Your task to perform on an android device: change the clock display to digital Image 0: 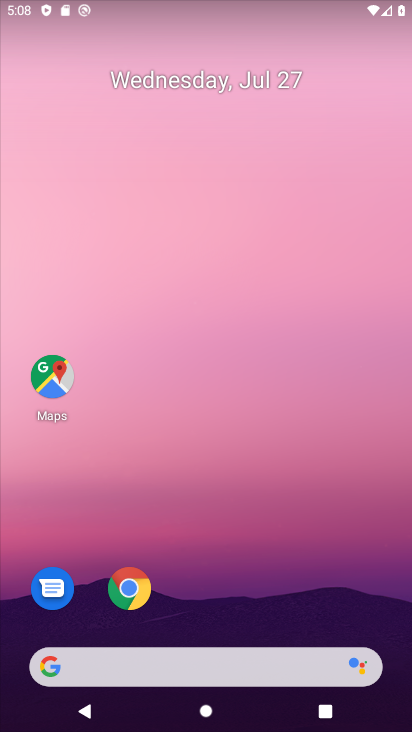
Step 0: drag from (267, 642) to (323, 3)
Your task to perform on an android device: change the clock display to digital Image 1: 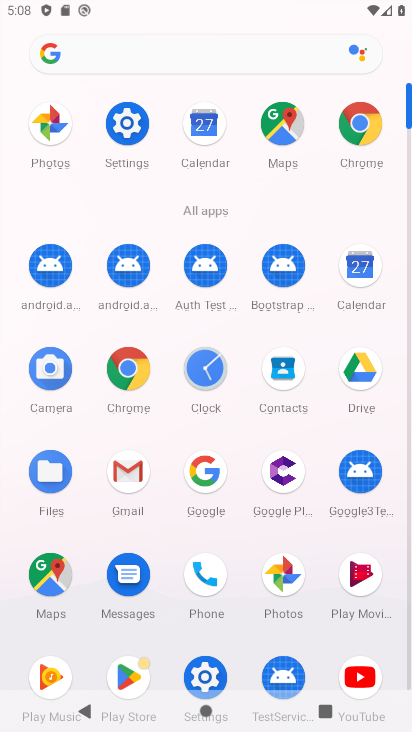
Step 1: click (207, 373)
Your task to perform on an android device: change the clock display to digital Image 2: 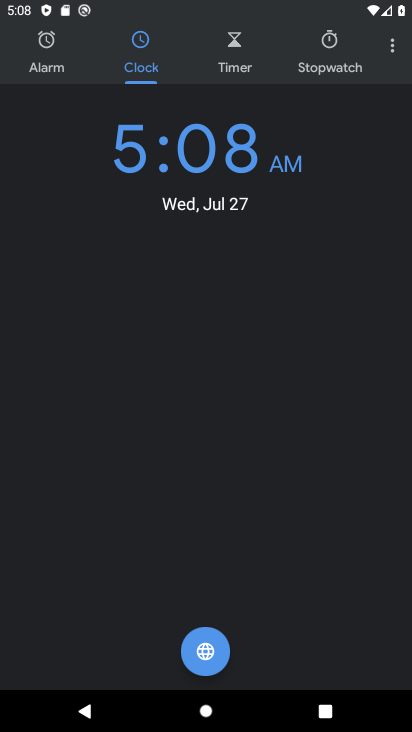
Step 2: click (395, 41)
Your task to perform on an android device: change the clock display to digital Image 3: 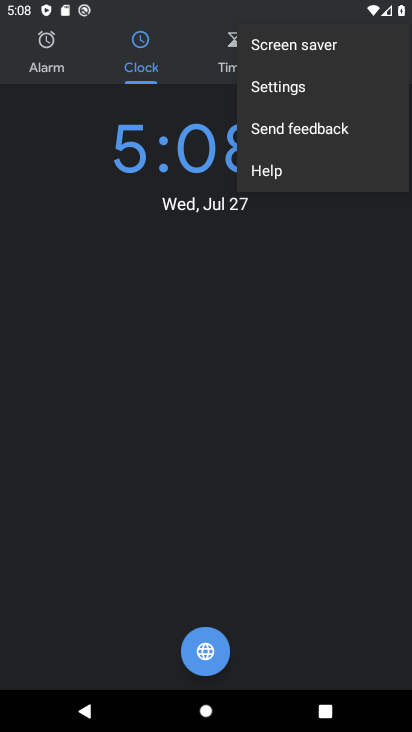
Step 3: click (314, 94)
Your task to perform on an android device: change the clock display to digital Image 4: 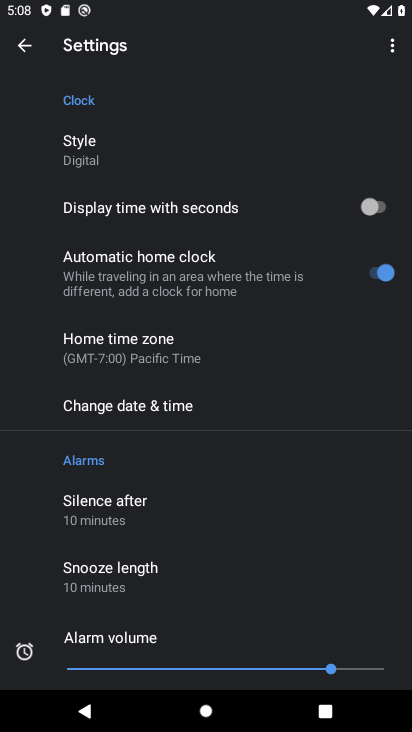
Step 4: task complete